Your task to perform on an android device: turn off airplane mode Image 0: 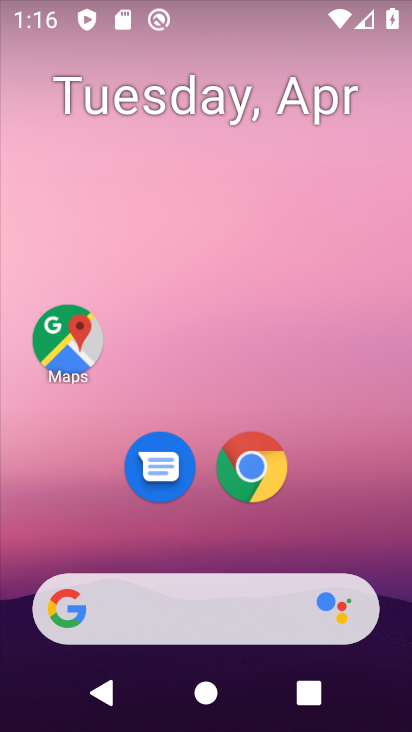
Step 0: drag from (364, 544) to (350, 97)
Your task to perform on an android device: turn off airplane mode Image 1: 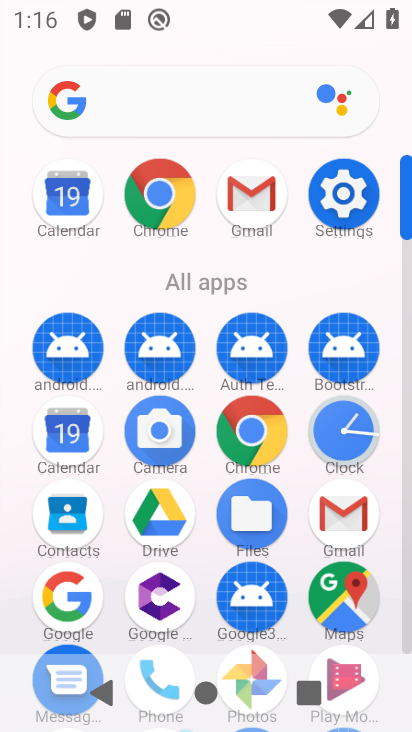
Step 1: click (348, 197)
Your task to perform on an android device: turn off airplane mode Image 2: 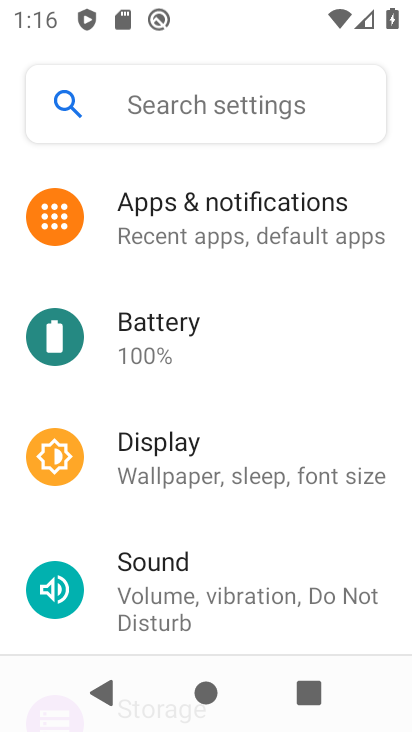
Step 2: drag from (379, 304) to (372, 457)
Your task to perform on an android device: turn off airplane mode Image 3: 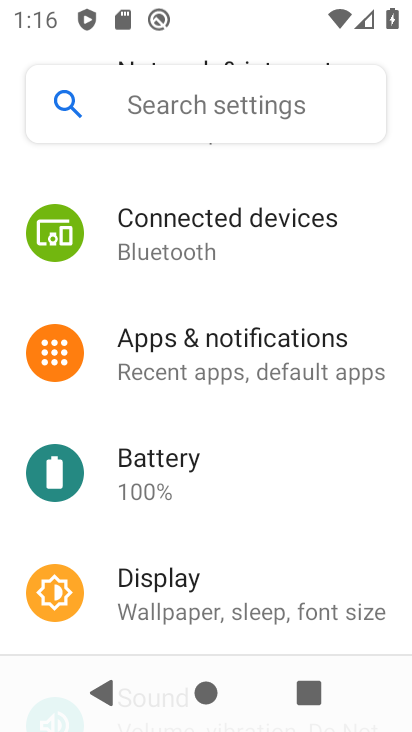
Step 3: drag from (383, 257) to (410, 475)
Your task to perform on an android device: turn off airplane mode Image 4: 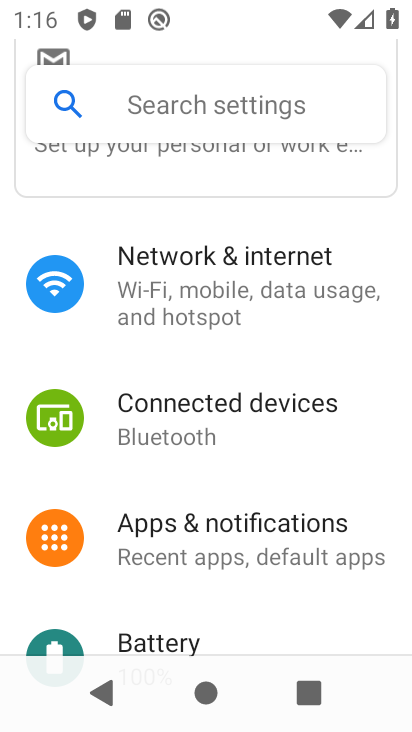
Step 4: click (243, 262)
Your task to perform on an android device: turn off airplane mode Image 5: 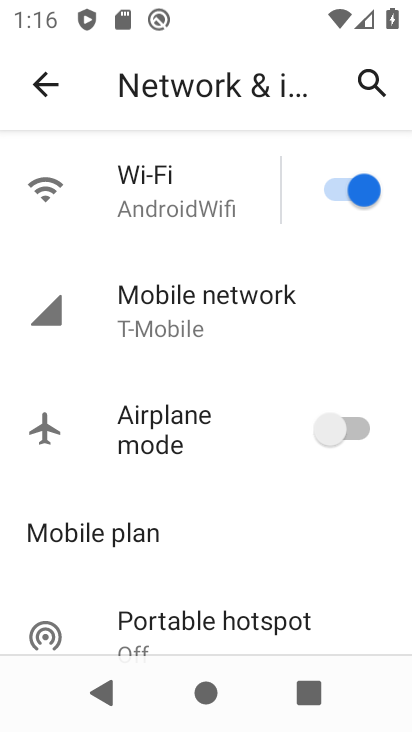
Step 5: task complete